Your task to perform on an android device: toggle translation in the chrome app Image 0: 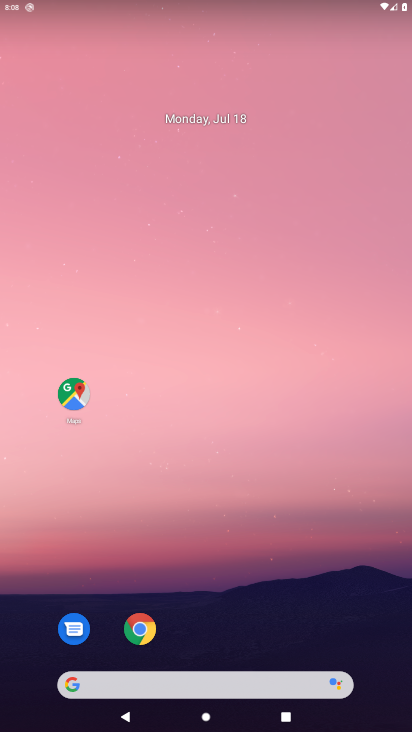
Step 0: click (154, 623)
Your task to perform on an android device: toggle translation in the chrome app Image 1: 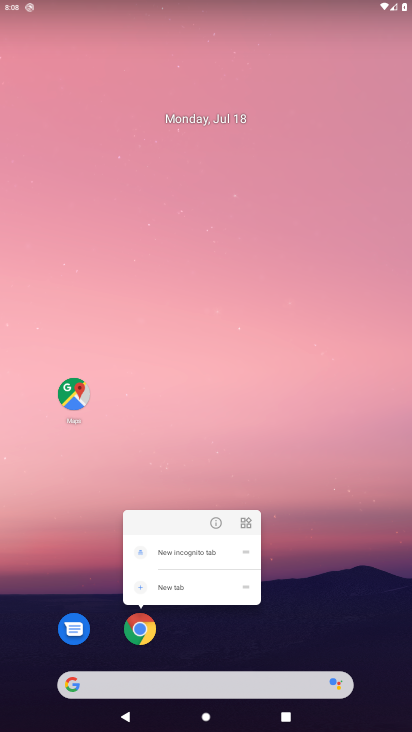
Step 1: click (133, 627)
Your task to perform on an android device: toggle translation in the chrome app Image 2: 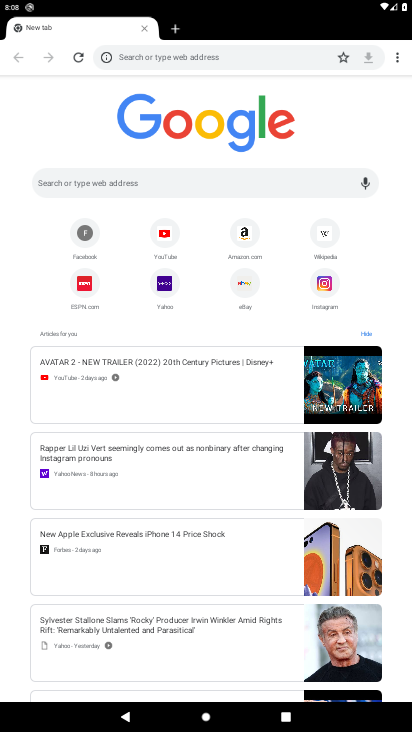
Step 2: click (394, 59)
Your task to perform on an android device: toggle translation in the chrome app Image 3: 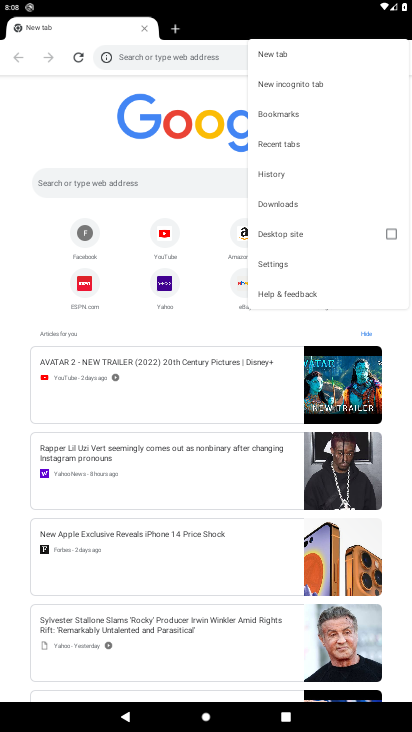
Step 3: click (253, 266)
Your task to perform on an android device: toggle translation in the chrome app Image 4: 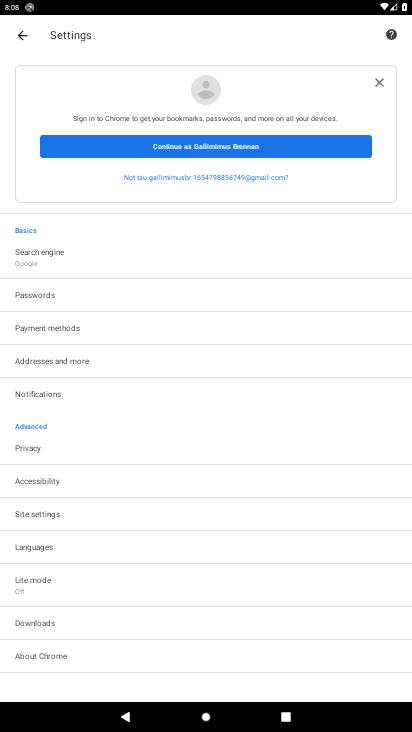
Step 4: click (89, 508)
Your task to perform on an android device: toggle translation in the chrome app Image 5: 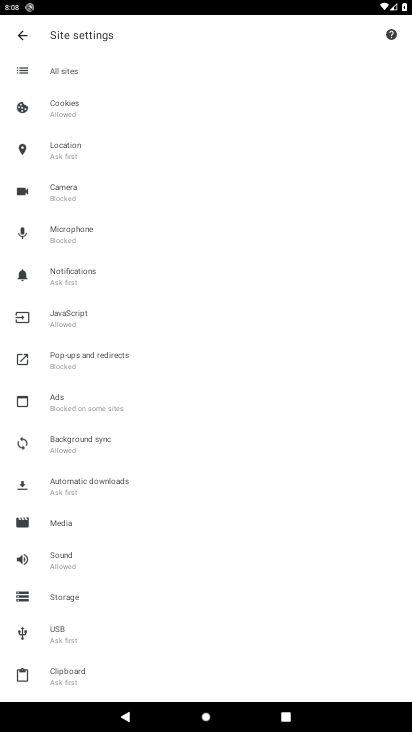
Step 5: press back button
Your task to perform on an android device: toggle translation in the chrome app Image 6: 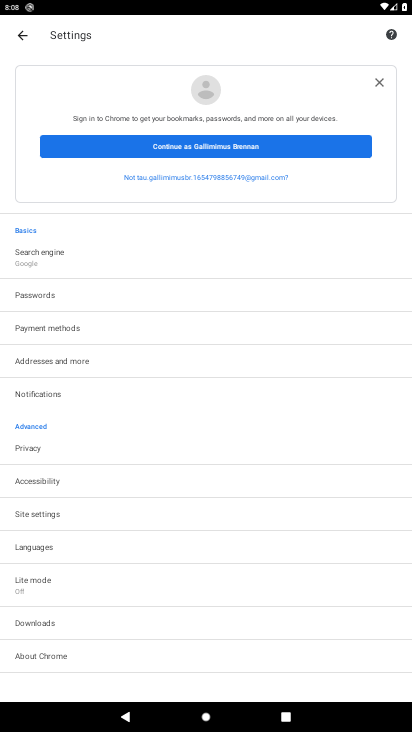
Step 6: click (80, 542)
Your task to perform on an android device: toggle translation in the chrome app Image 7: 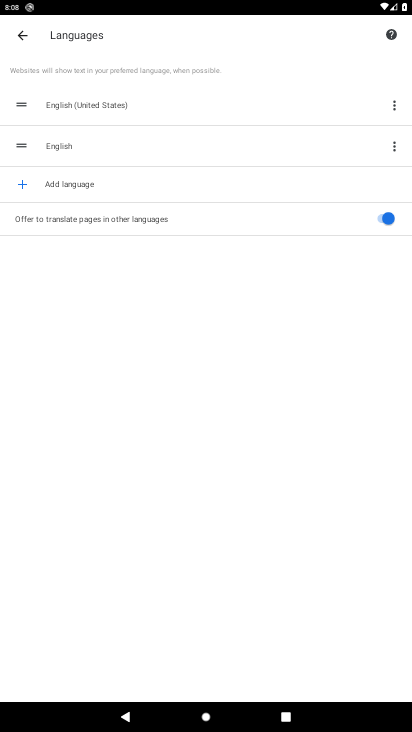
Step 7: click (384, 227)
Your task to perform on an android device: toggle translation in the chrome app Image 8: 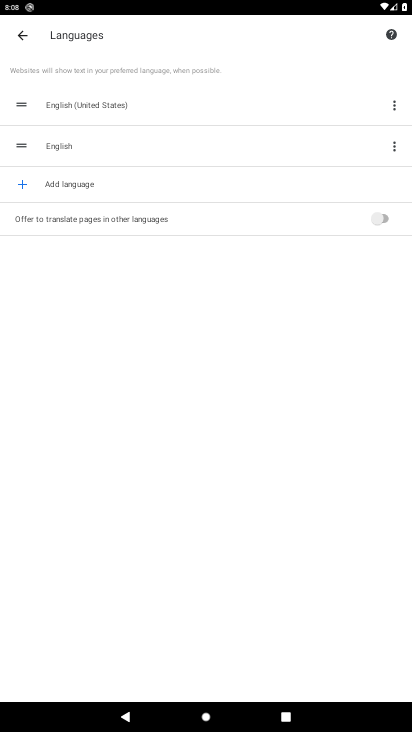
Step 8: task complete